Your task to perform on an android device: open the mobile data screen to see how much data has been used Image 0: 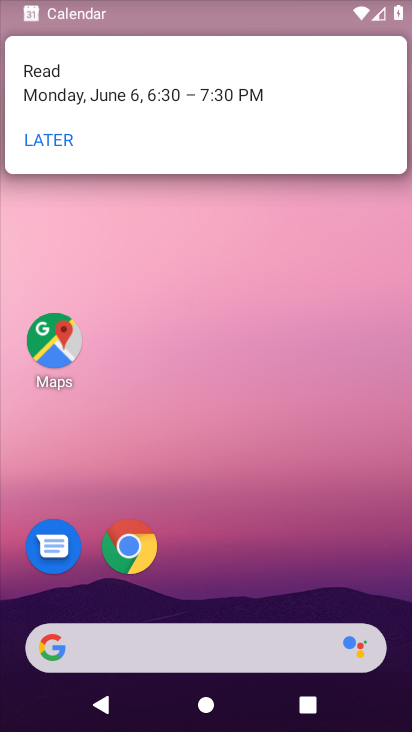
Step 0: drag from (244, 472) to (225, 31)
Your task to perform on an android device: open the mobile data screen to see how much data has been used Image 1: 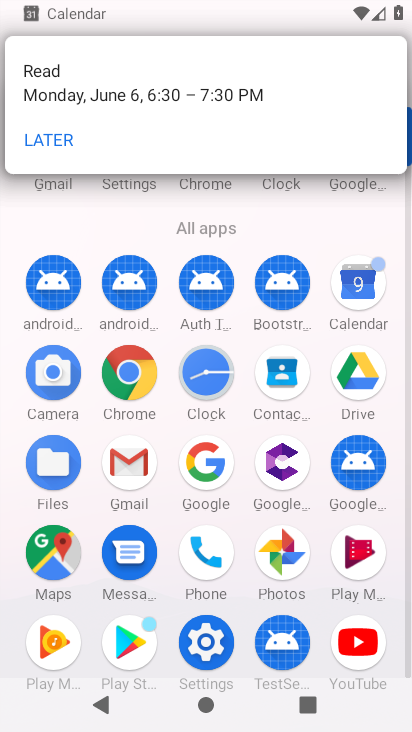
Step 1: click (200, 616)
Your task to perform on an android device: open the mobile data screen to see how much data has been used Image 2: 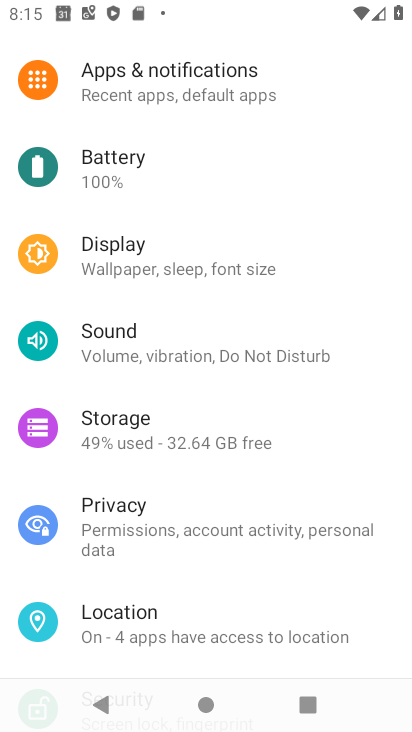
Step 2: drag from (272, 151) to (254, 721)
Your task to perform on an android device: open the mobile data screen to see how much data has been used Image 3: 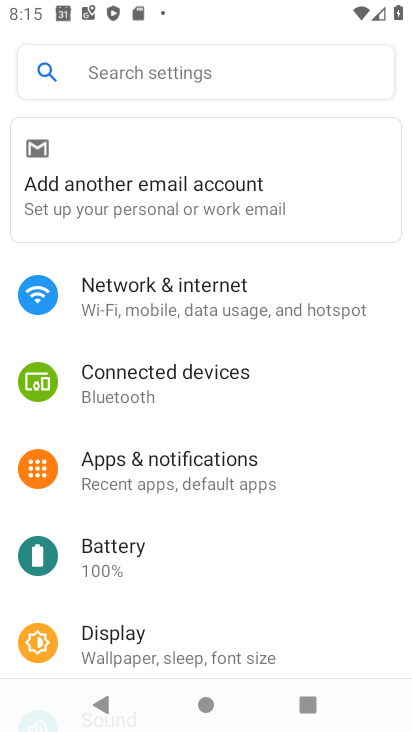
Step 3: click (250, 298)
Your task to perform on an android device: open the mobile data screen to see how much data has been used Image 4: 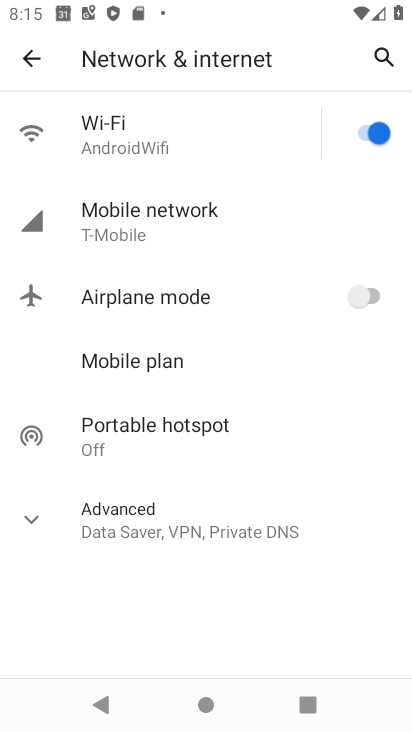
Step 4: click (102, 228)
Your task to perform on an android device: open the mobile data screen to see how much data has been used Image 5: 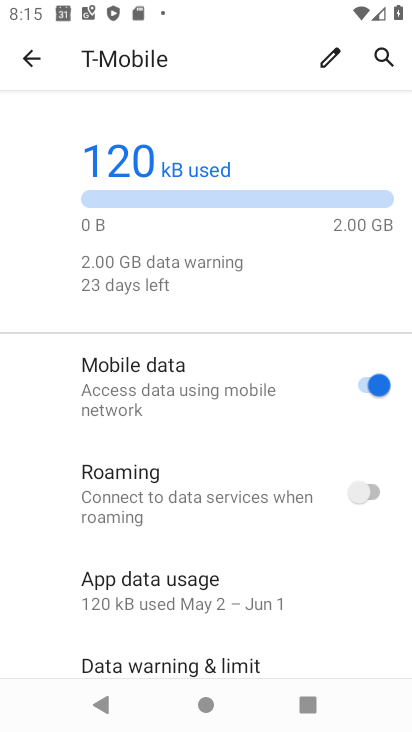
Step 5: drag from (323, 635) to (198, 164)
Your task to perform on an android device: open the mobile data screen to see how much data has been used Image 6: 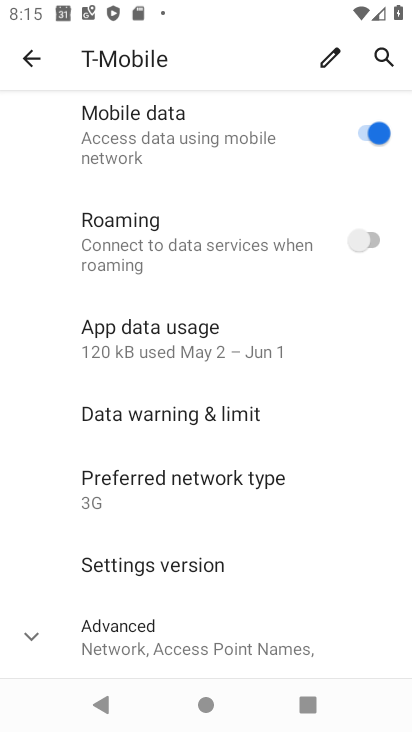
Step 6: click (204, 348)
Your task to perform on an android device: open the mobile data screen to see how much data has been used Image 7: 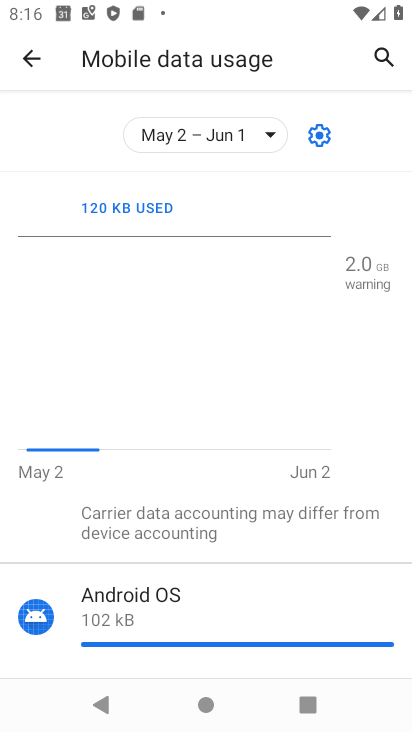
Step 7: task complete